Your task to perform on an android device: Turn off the flashlight Image 0: 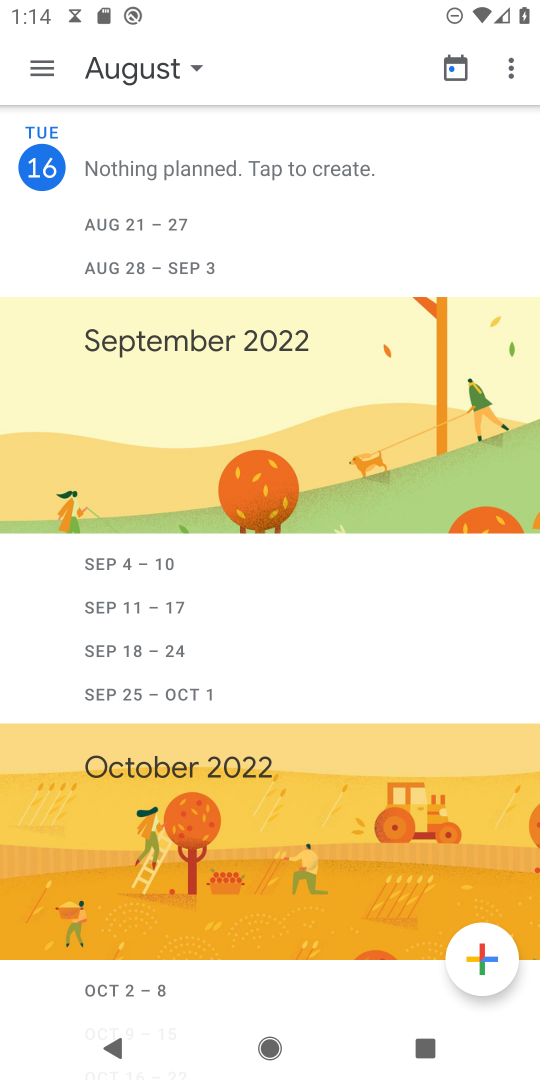
Step 0: press back button
Your task to perform on an android device: Turn off the flashlight Image 1: 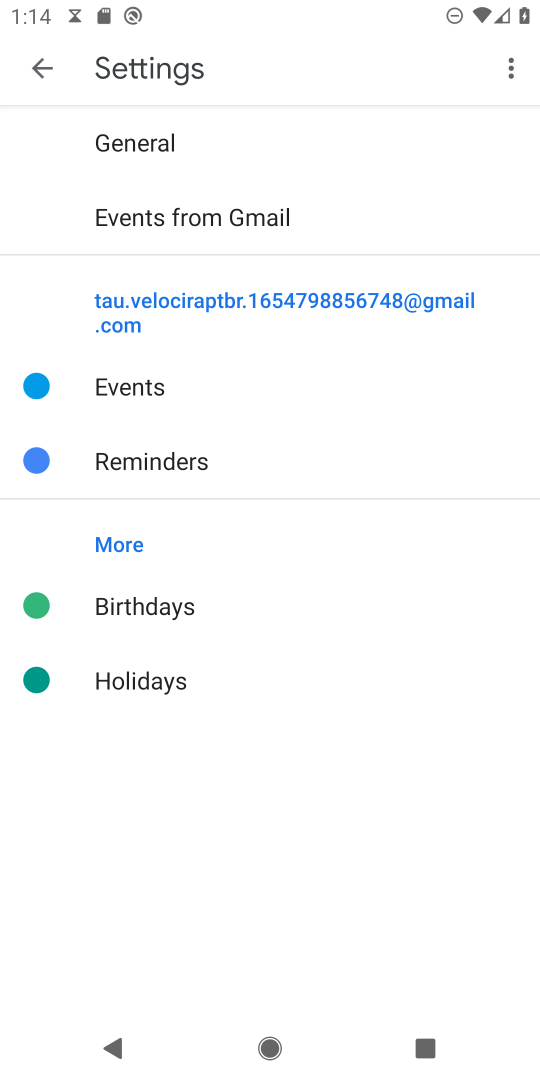
Step 1: press back button
Your task to perform on an android device: Turn off the flashlight Image 2: 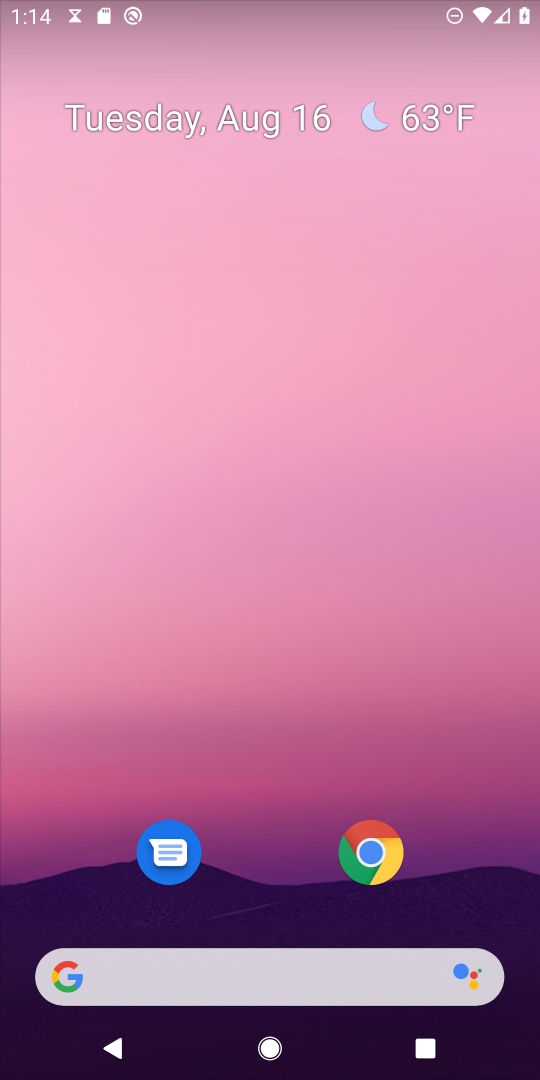
Step 2: drag from (263, 834) to (409, 100)
Your task to perform on an android device: Turn off the flashlight Image 3: 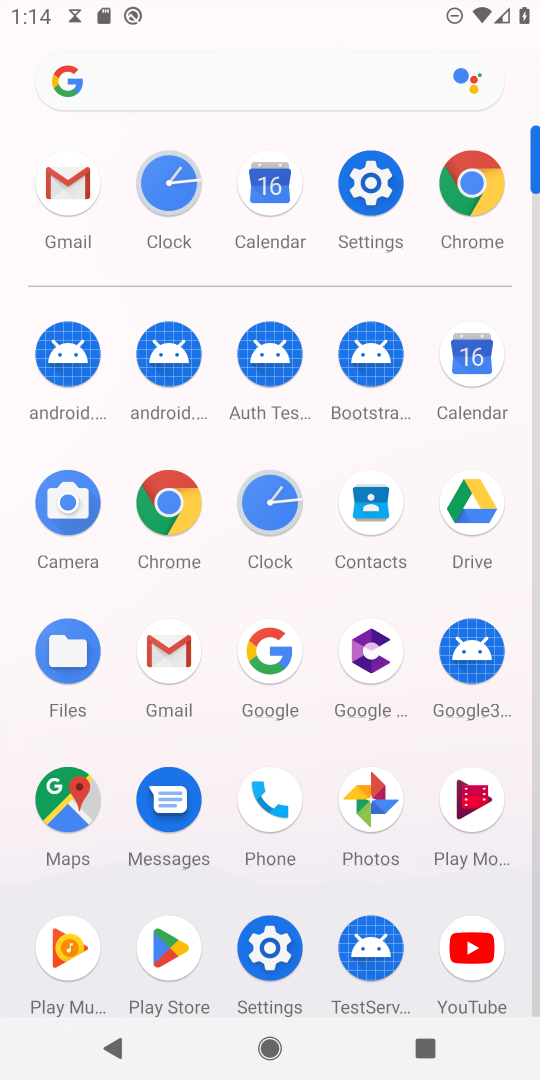
Step 3: click (372, 182)
Your task to perform on an android device: Turn off the flashlight Image 4: 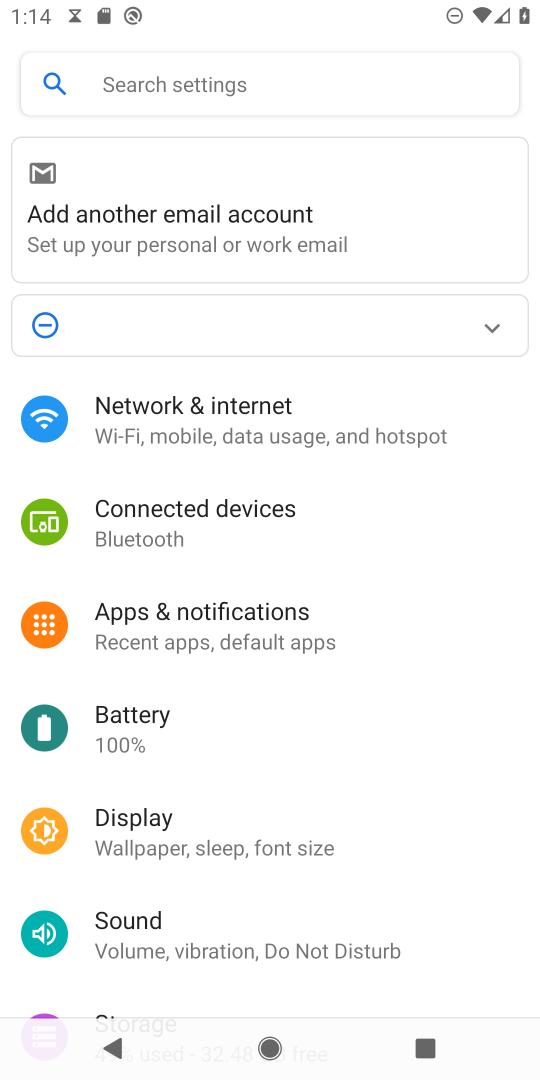
Step 4: click (227, 75)
Your task to perform on an android device: Turn off the flashlight Image 5: 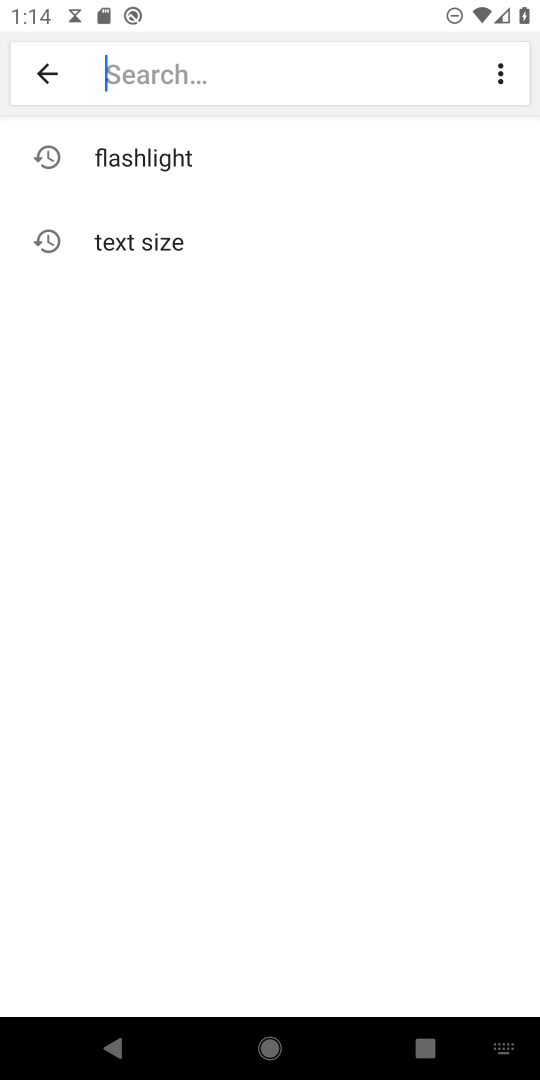
Step 5: type "flashlight"
Your task to perform on an android device: Turn off the flashlight Image 6: 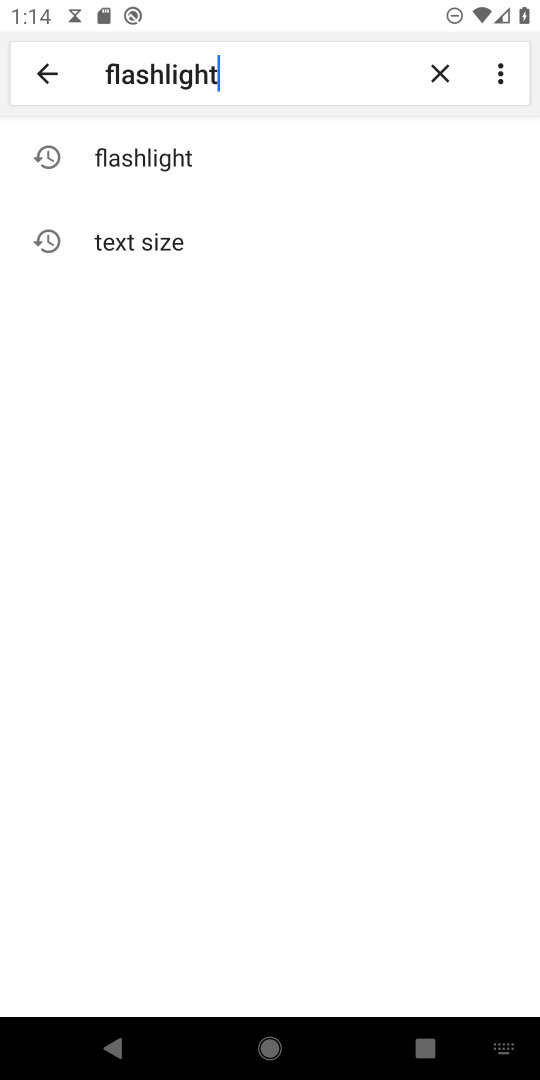
Step 6: click (216, 139)
Your task to perform on an android device: Turn off the flashlight Image 7: 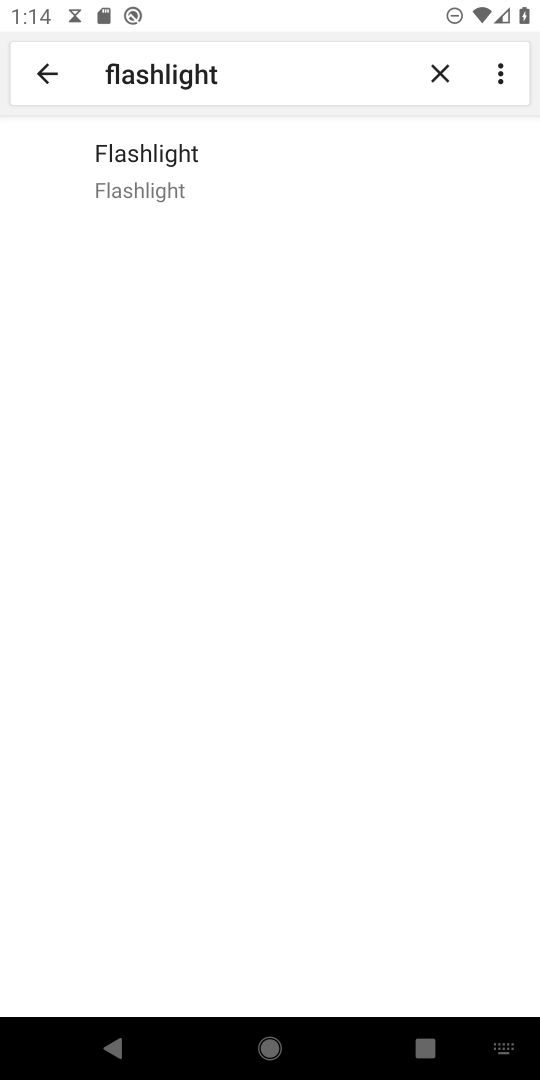
Step 7: click (202, 166)
Your task to perform on an android device: Turn off the flashlight Image 8: 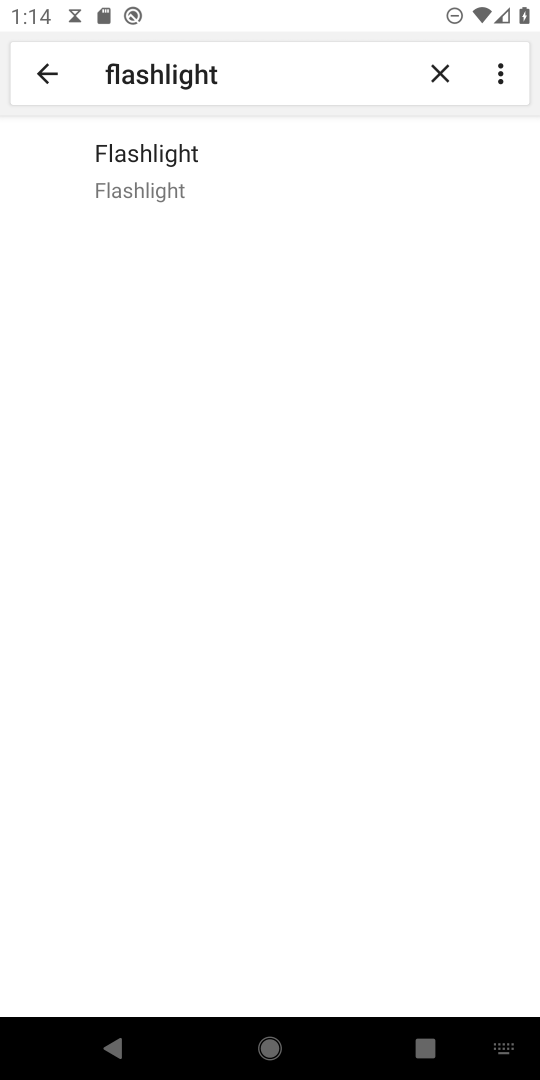
Step 8: task complete